Your task to perform on an android device: Add usb-a to usb-b to the cart on target.com Image 0: 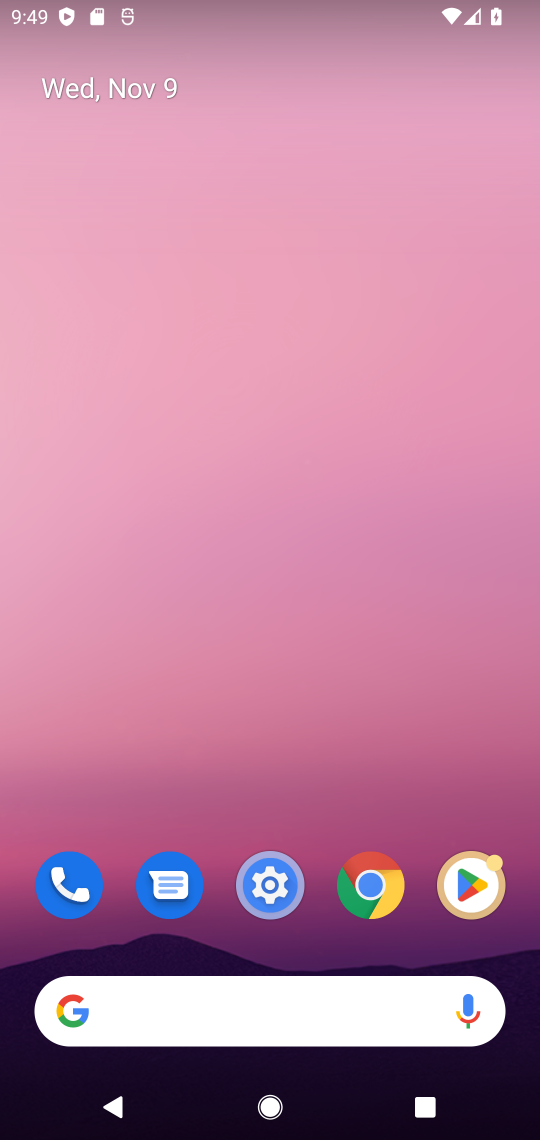
Step 0: click (382, 884)
Your task to perform on an android device: Add usb-a to usb-b to the cart on target.com Image 1: 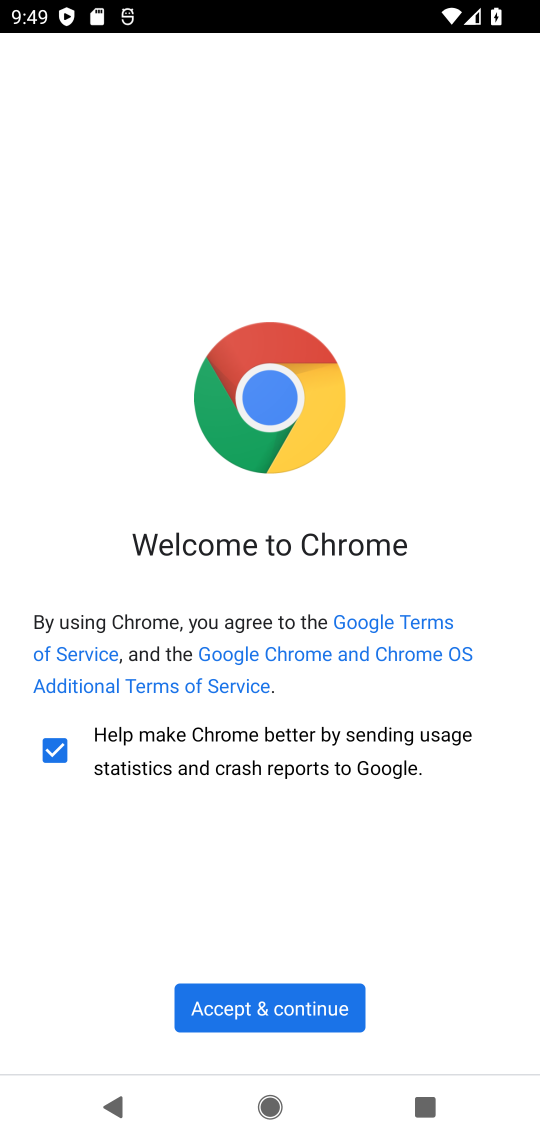
Step 1: click (272, 998)
Your task to perform on an android device: Add usb-a to usb-b to the cart on target.com Image 2: 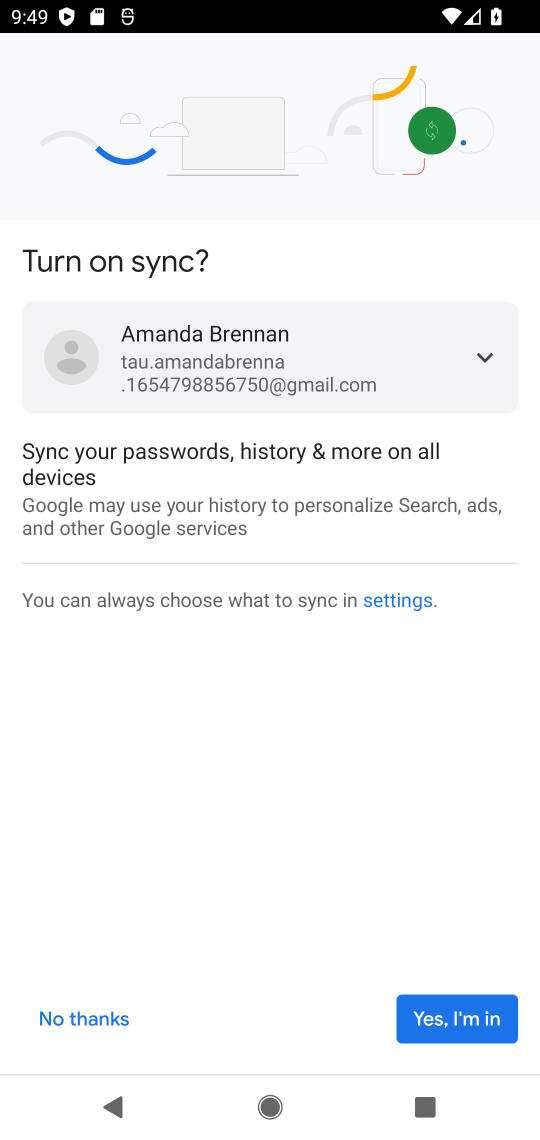
Step 2: click (442, 1020)
Your task to perform on an android device: Add usb-a to usb-b to the cart on target.com Image 3: 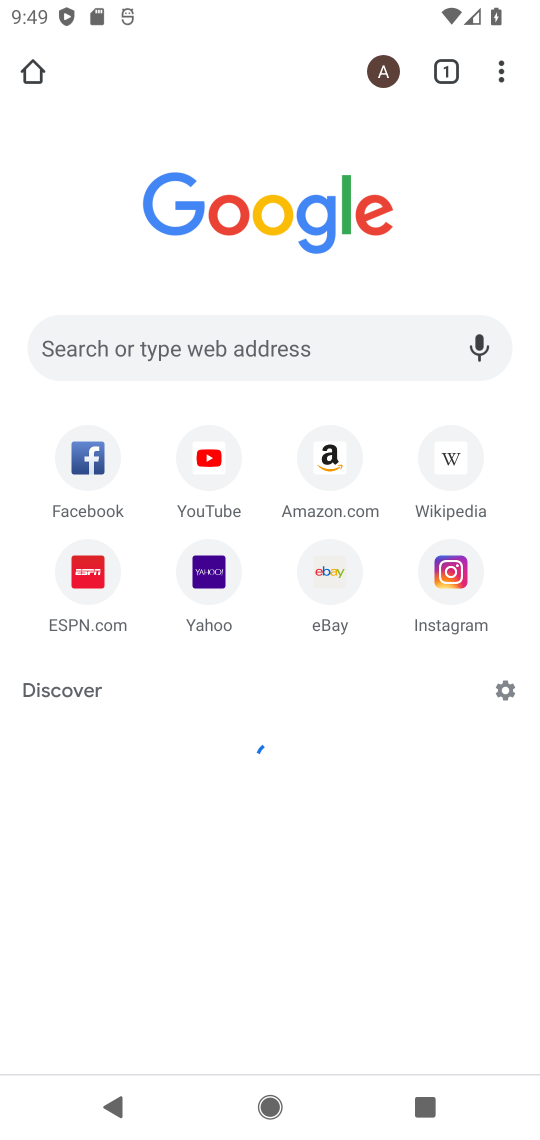
Step 3: click (244, 343)
Your task to perform on an android device: Add usb-a to usb-b to the cart on target.com Image 4: 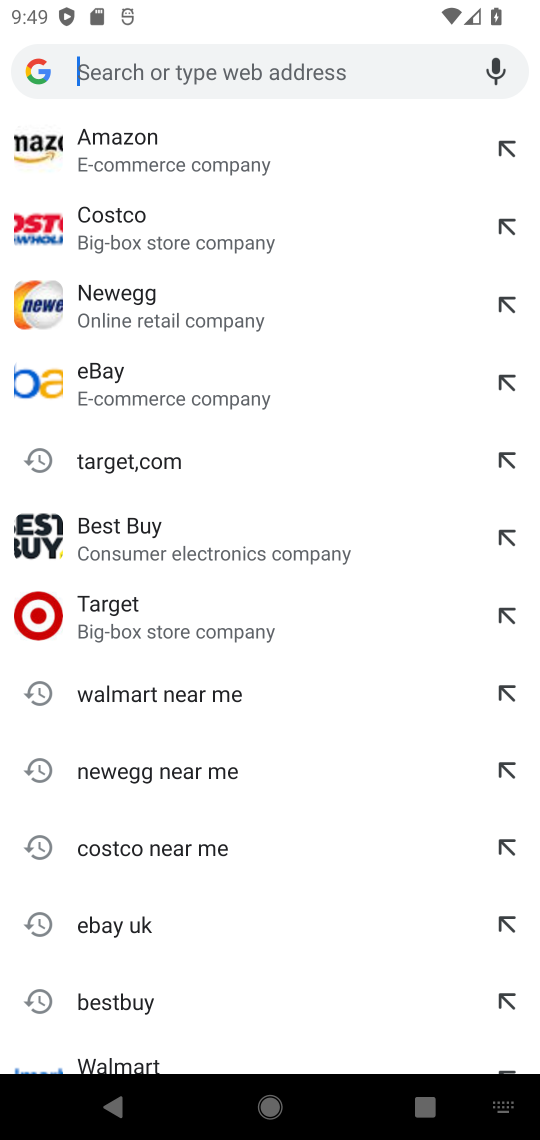
Step 4: click (116, 612)
Your task to perform on an android device: Add usb-a to usb-b to the cart on target.com Image 5: 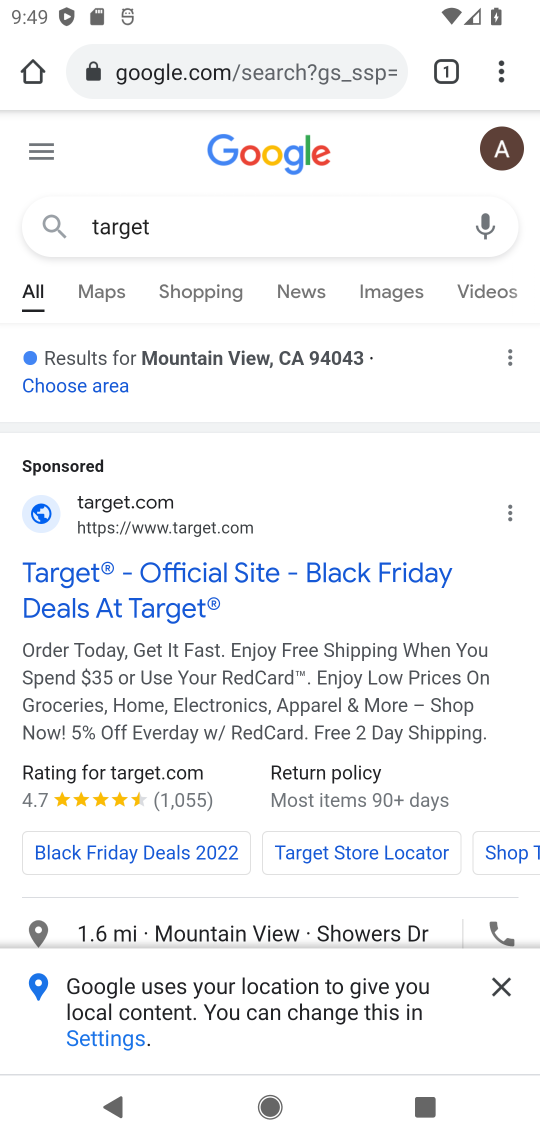
Step 5: click (493, 990)
Your task to perform on an android device: Add usb-a to usb-b to the cart on target.com Image 6: 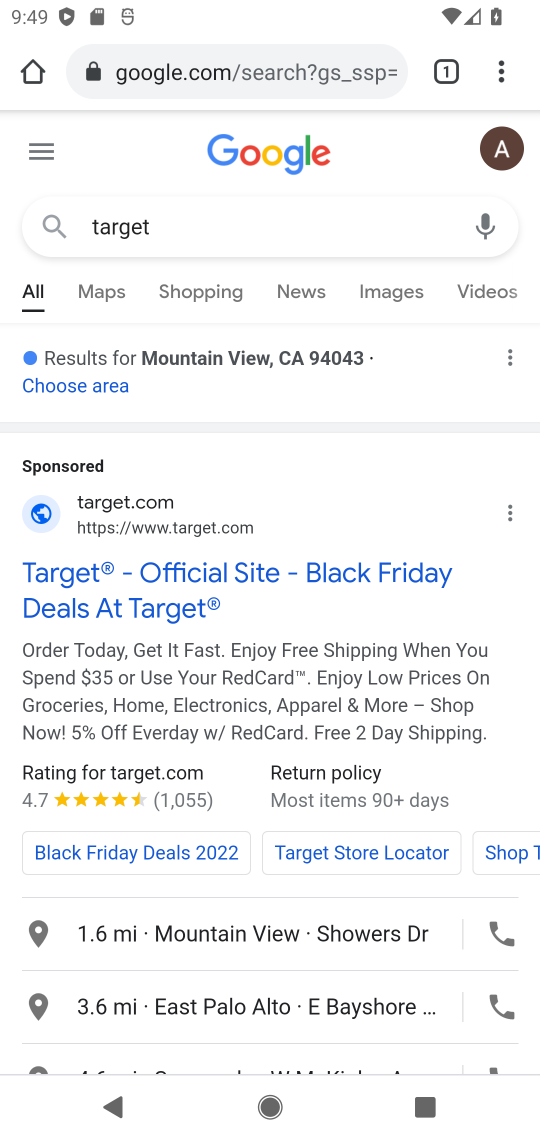
Step 6: drag from (336, 821) to (502, 103)
Your task to perform on an android device: Add usb-a to usb-b to the cart on target.com Image 7: 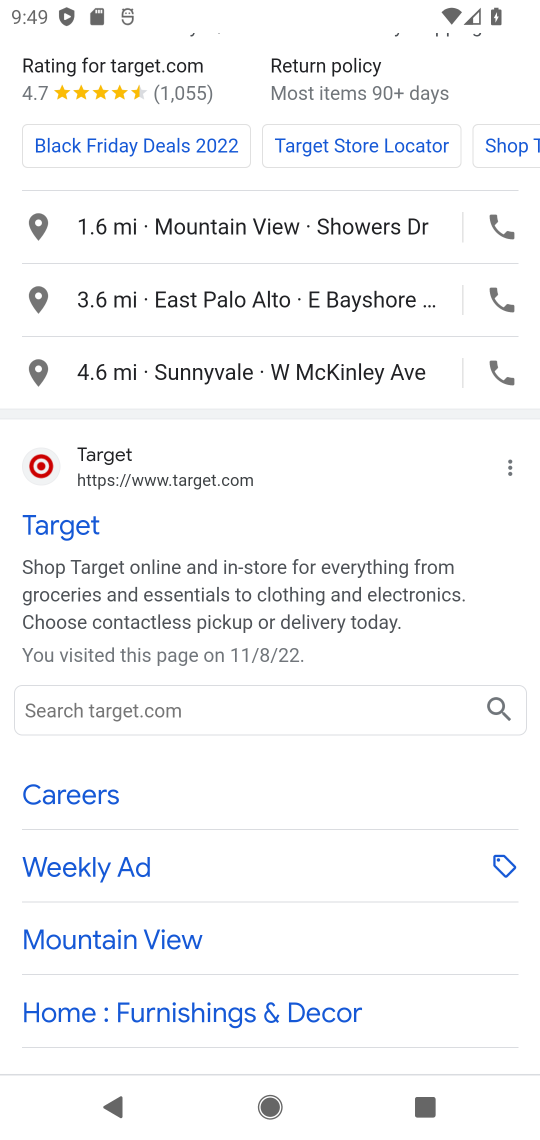
Step 7: click (52, 706)
Your task to perform on an android device: Add usb-a to usb-b to the cart on target.com Image 8: 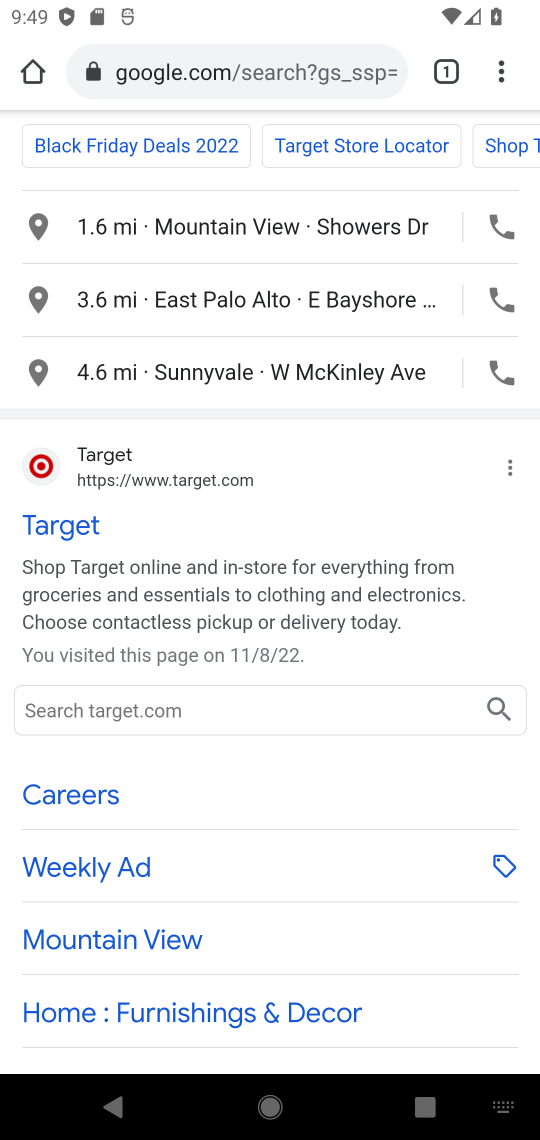
Step 8: type "usb-a to usb-b"
Your task to perform on an android device: Add usb-a to usb-b to the cart on target.com Image 9: 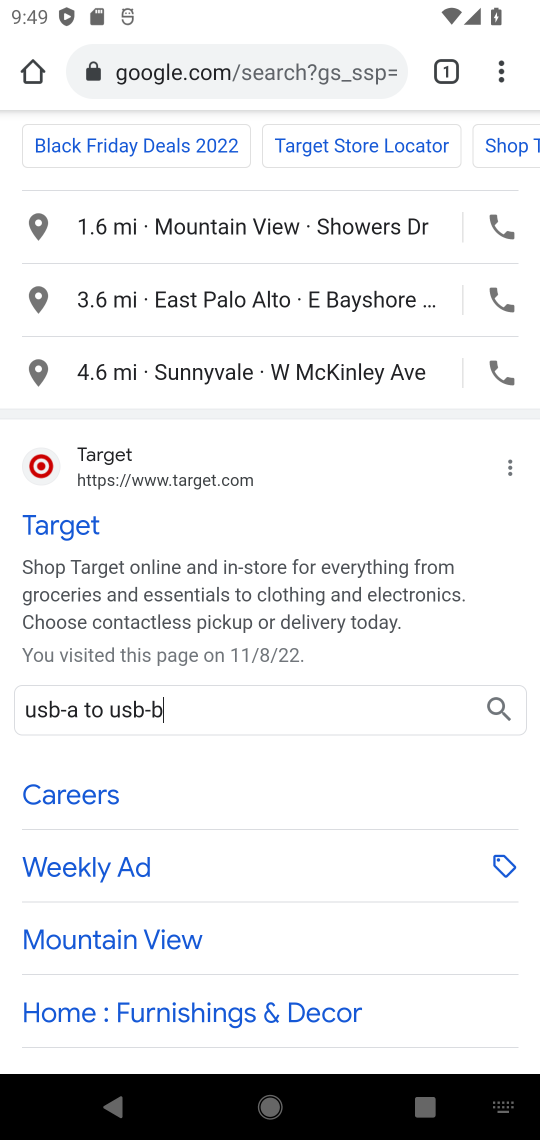
Step 9: click (492, 703)
Your task to perform on an android device: Add usb-a to usb-b to the cart on target.com Image 10: 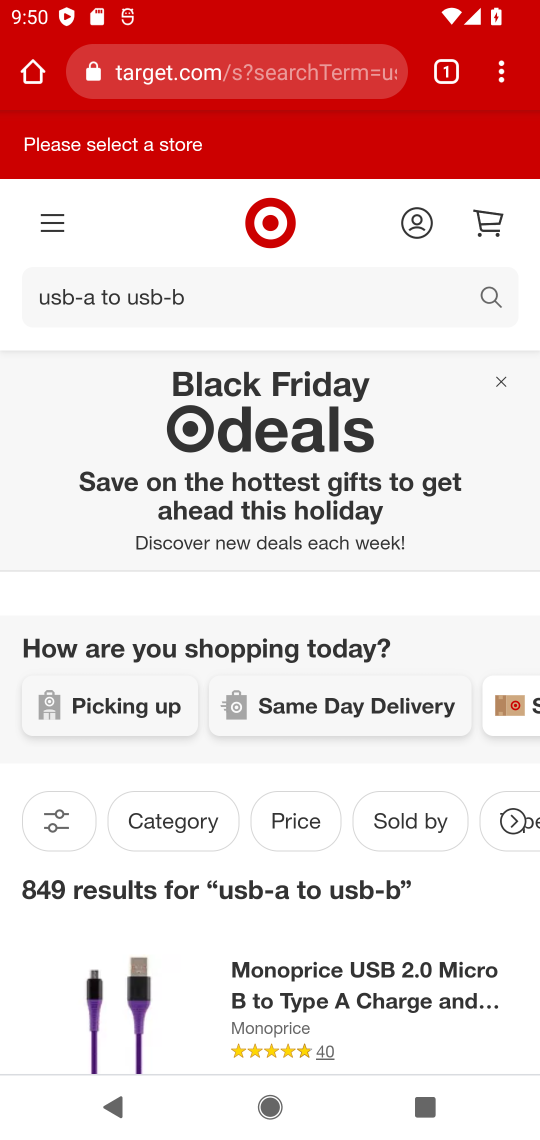
Step 10: drag from (378, 877) to (459, 265)
Your task to perform on an android device: Add usb-a to usb-b to the cart on target.com Image 11: 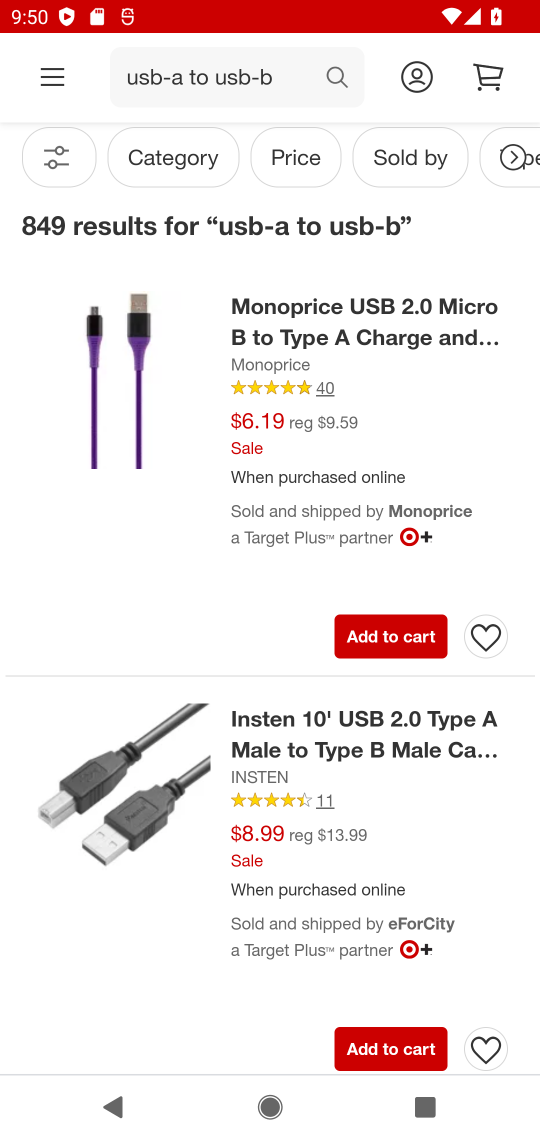
Step 11: click (405, 628)
Your task to perform on an android device: Add usb-a to usb-b to the cart on target.com Image 12: 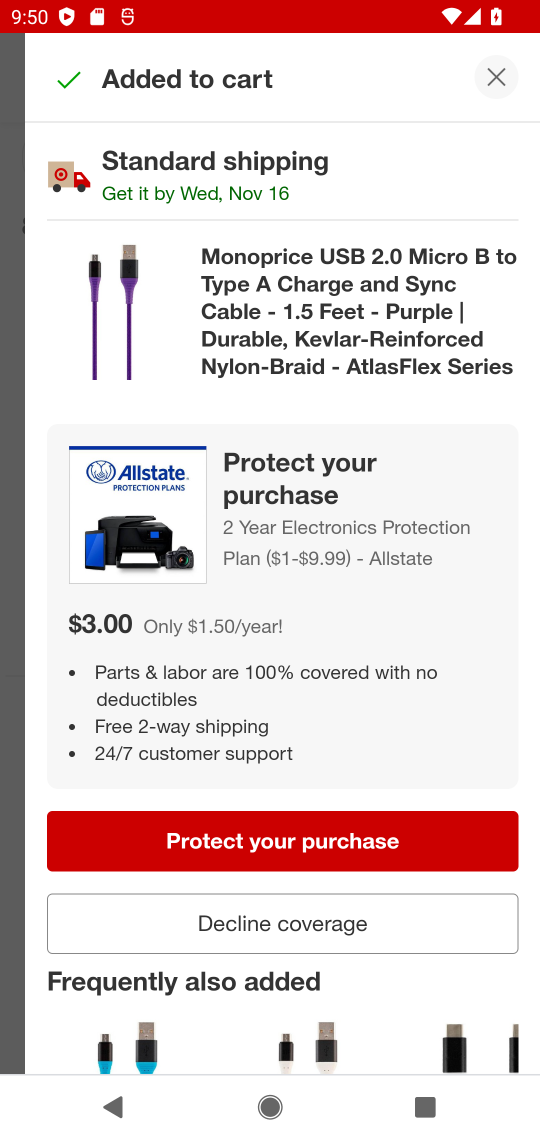
Step 12: task complete